Your task to perform on an android device: Toggle the flashlight Image 0: 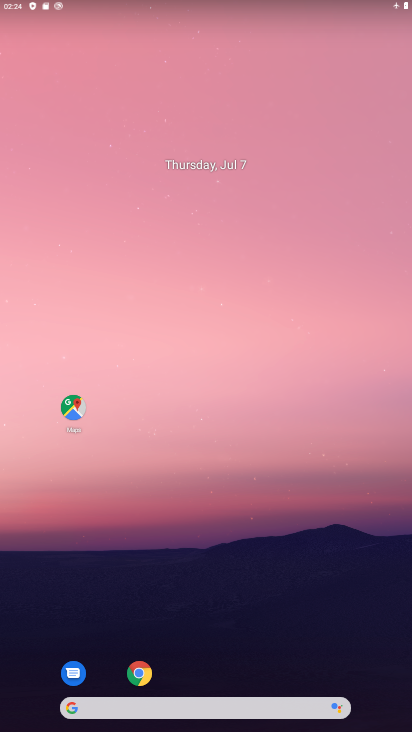
Step 0: drag from (202, 635) to (278, 239)
Your task to perform on an android device: Toggle the flashlight Image 1: 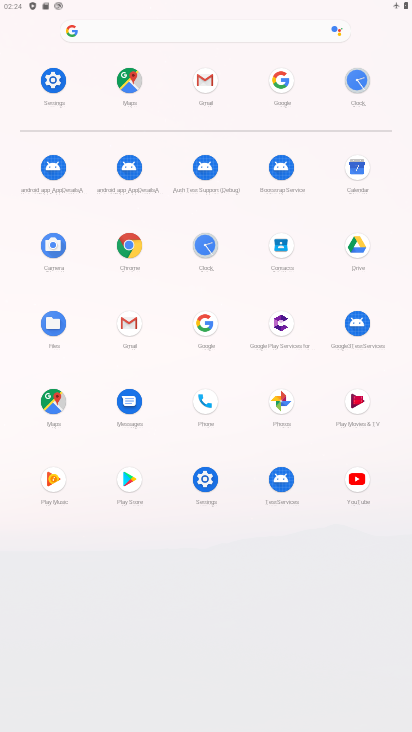
Step 1: click (57, 86)
Your task to perform on an android device: Toggle the flashlight Image 2: 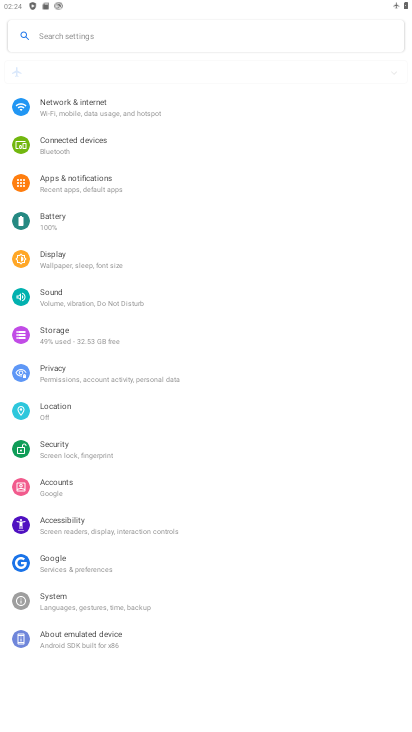
Step 2: task complete